Your task to perform on an android device: remove spam from my inbox in the gmail app Image 0: 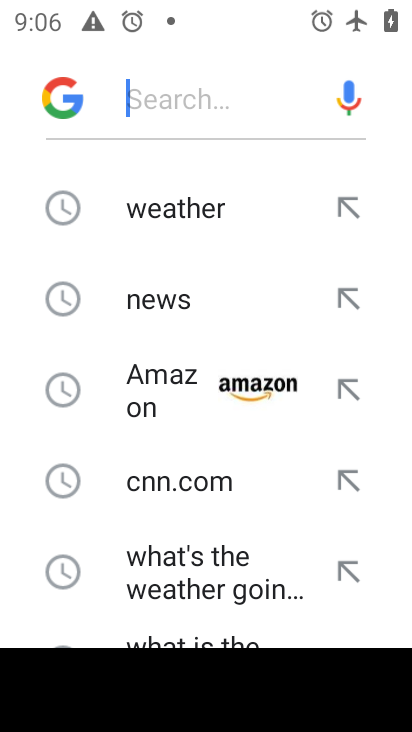
Step 0: press home button
Your task to perform on an android device: remove spam from my inbox in the gmail app Image 1: 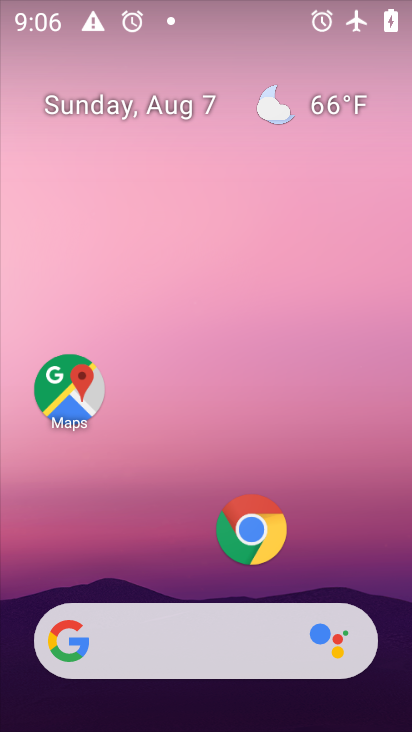
Step 1: drag from (143, 565) to (161, 9)
Your task to perform on an android device: remove spam from my inbox in the gmail app Image 2: 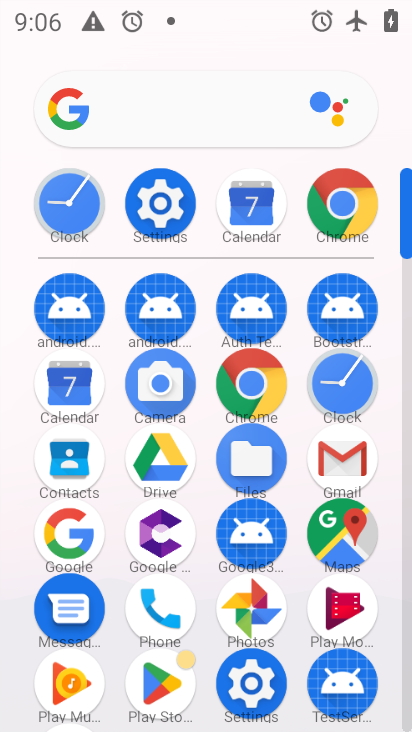
Step 2: click (325, 463)
Your task to perform on an android device: remove spam from my inbox in the gmail app Image 3: 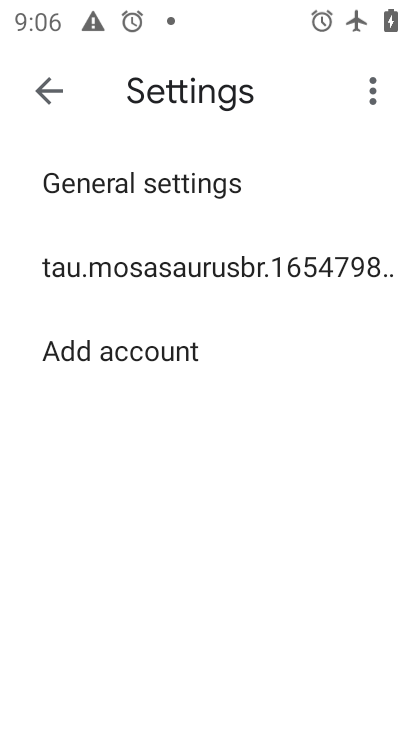
Step 3: click (49, 90)
Your task to perform on an android device: remove spam from my inbox in the gmail app Image 4: 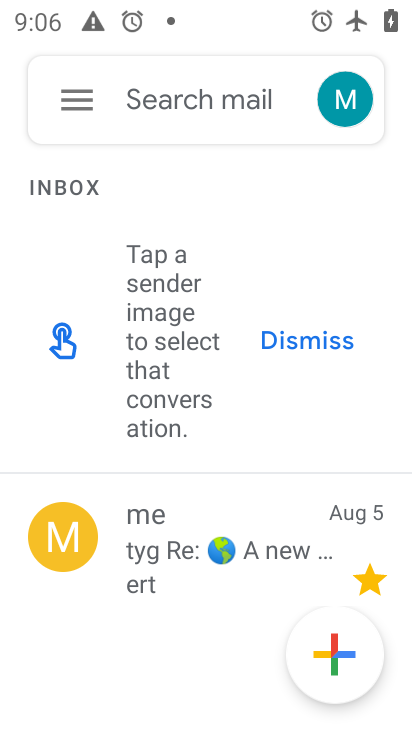
Step 4: click (81, 107)
Your task to perform on an android device: remove spam from my inbox in the gmail app Image 5: 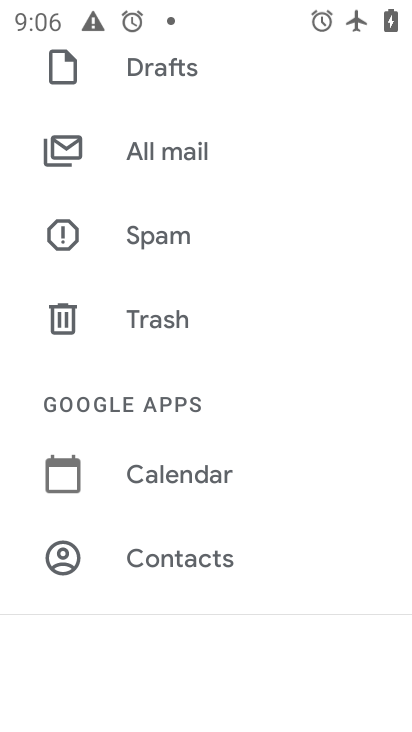
Step 5: click (140, 235)
Your task to perform on an android device: remove spam from my inbox in the gmail app Image 6: 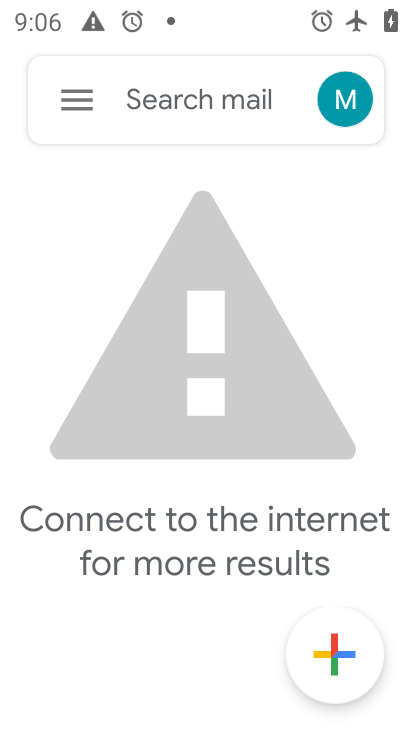
Step 6: task complete